Your task to perform on an android device: delete browsing data in the chrome app Image 0: 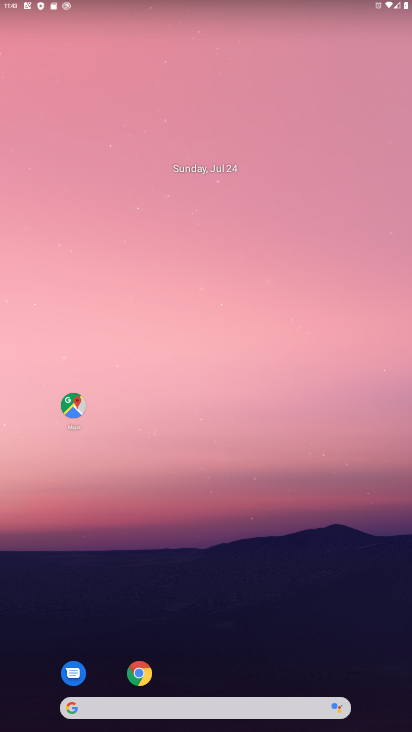
Step 0: drag from (259, 577) to (273, 29)
Your task to perform on an android device: delete browsing data in the chrome app Image 1: 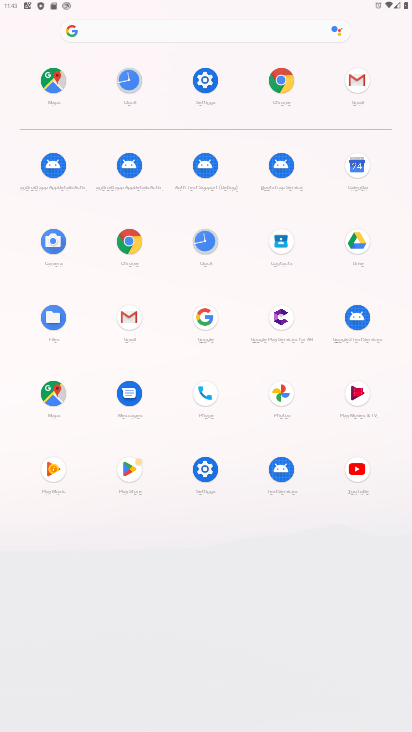
Step 1: click (283, 80)
Your task to perform on an android device: delete browsing data in the chrome app Image 2: 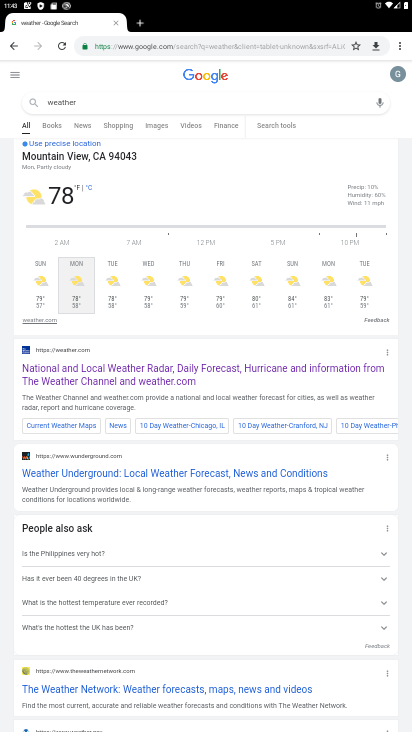
Step 2: drag from (400, 39) to (311, 162)
Your task to perform on an android device: delete browsing data in the chrome app Image 3: 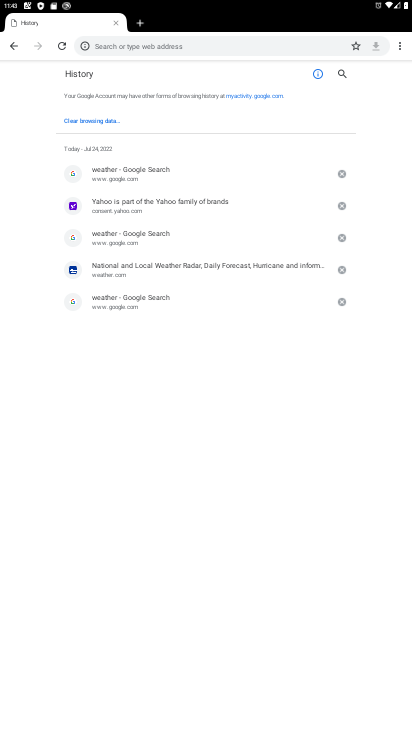
Step 3: click (110, 121)
Your task to perform on an android device: delete browsing data in the chrome app Image 4: 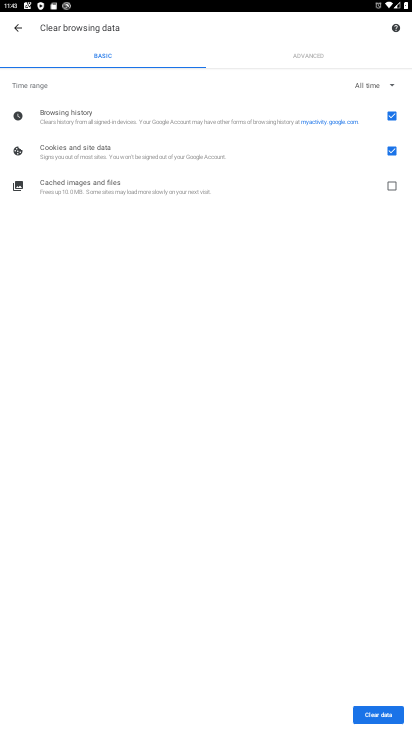
Step 4: click (389, 712)
Your task to perform on an android device: delete browsing data in the chrome app Image 5: 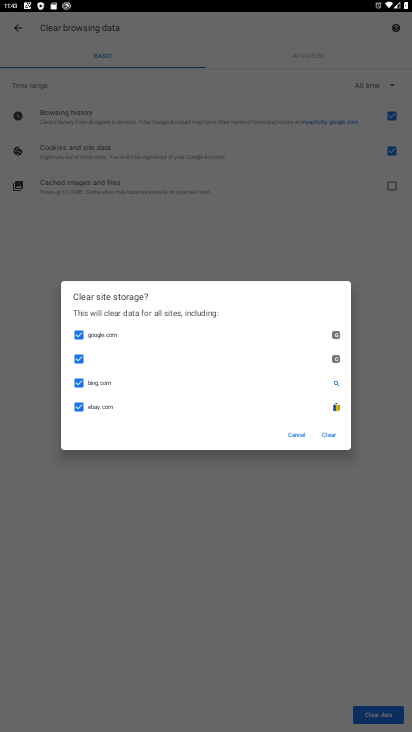
Step 5: click (325, 431)
Your task to perform on an android device: delete browsing data in the chrome app Image 6: 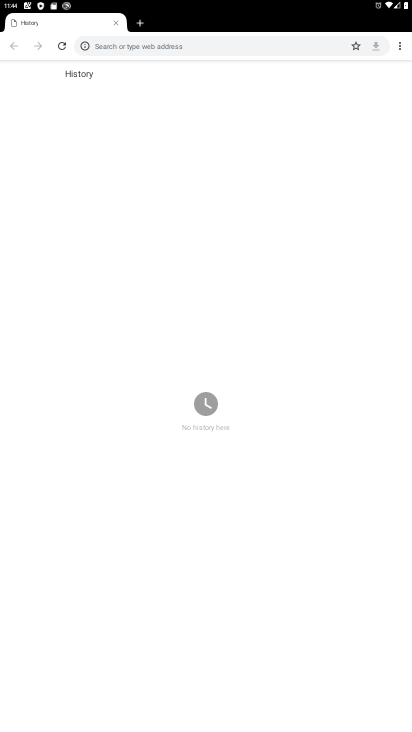
Step 6: task complete